Your task to perform on an android device: clear all cookies in the chrome app Image 0: 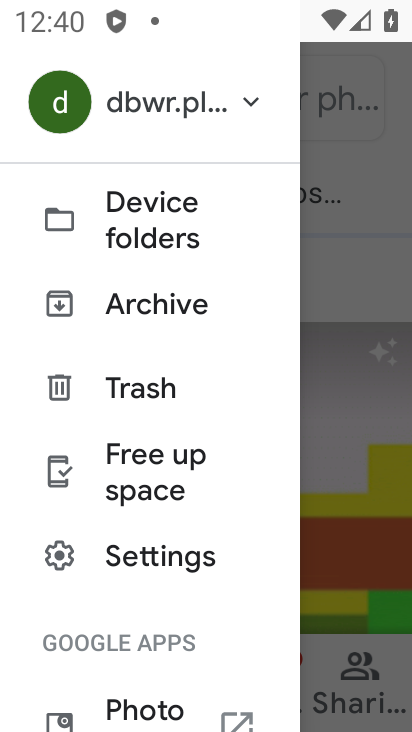
Step 0: press home button
Your task to perform on an android device: clear all cookies in the chrome app Image 1: 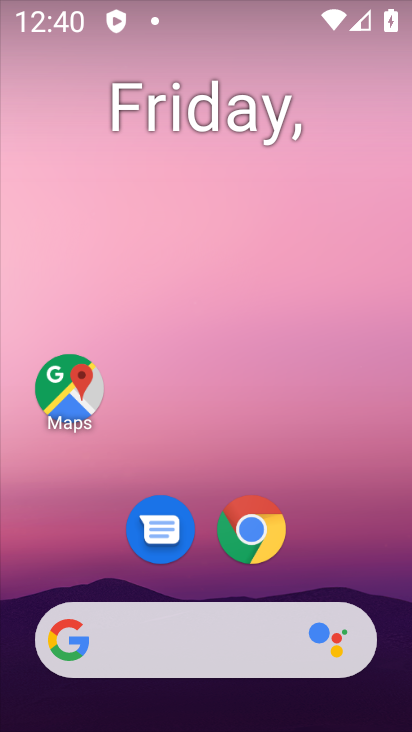
Step 1: click (259, 534)
Your task to perform on an android device: clear all cookies in the chrome app Image 2: 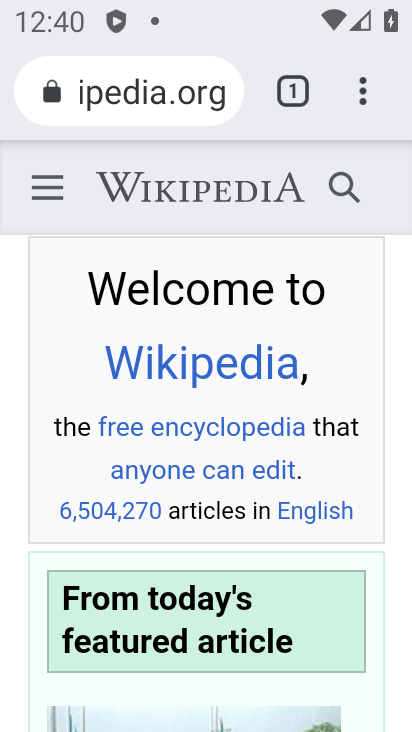
Step 2: click (363, 93)
Your task to perform on an android device: clear all cookies in the chrome app Image 3: 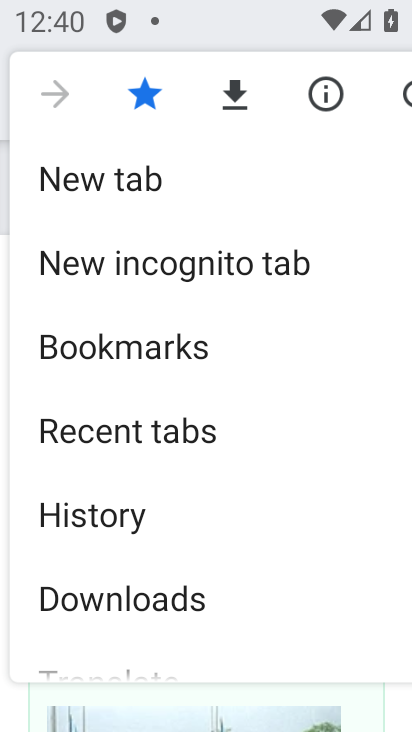
Step 3: click (115, 521)
Your task to perform on an android device: clear all cookies in the chrome app Image 4: 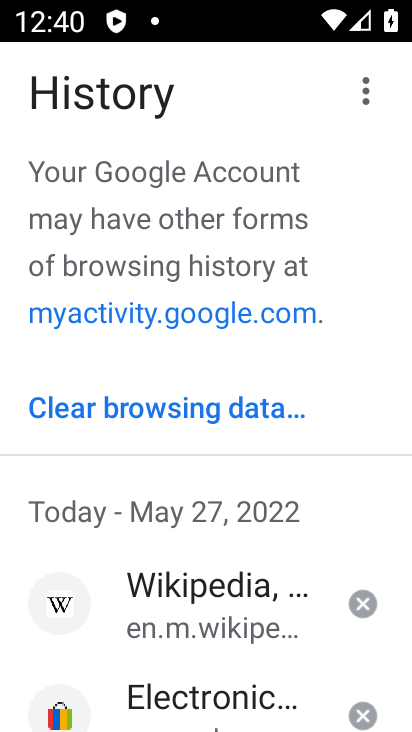
Step 4: drag from (201, 466) to (220, 171)
Your task to perform on an android device: clear all cookies in the chrome app Image 5: 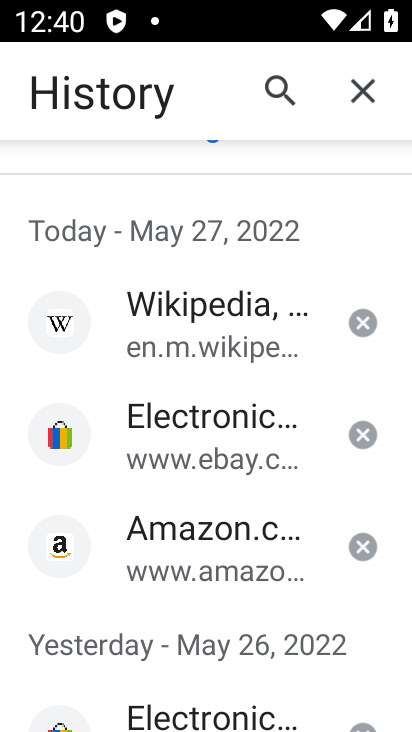
Step 5: drag from (179, 656) to (215, 262)
Your task to perform on an android device: clear all cookies in the chrome app Image 6: 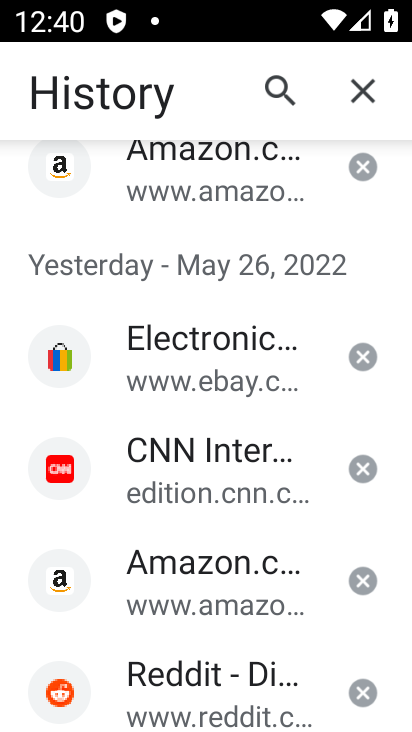
Step 6: drag from (239, 221) to (235, 648)
Your task to perform on an android device: clear all cookies in the chrome app Image 7: 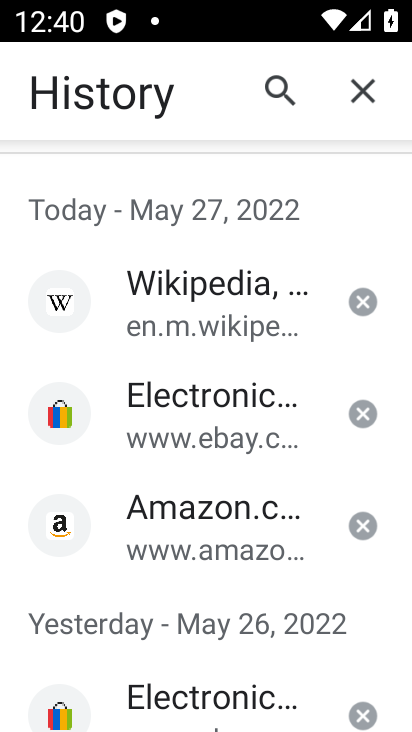
Step 7: drag from (259, 209) to (274, 650)
Your task to perform on an android device: clear all cookies in the chrome app Image 8: 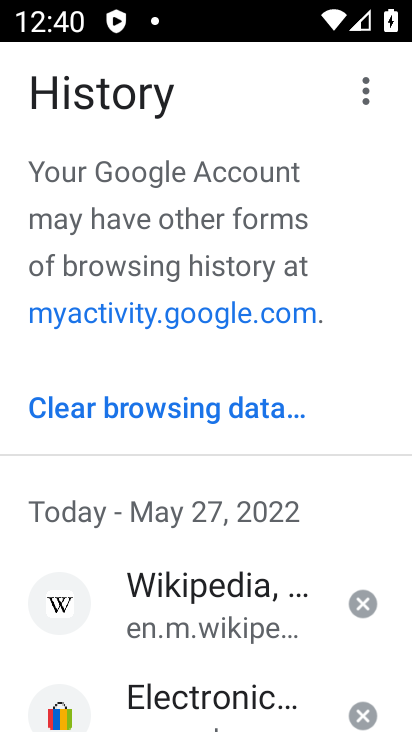
Step 8: click (196, 408)
Your task to perform on an android device: clear all cookies in the chrome app Image 9: 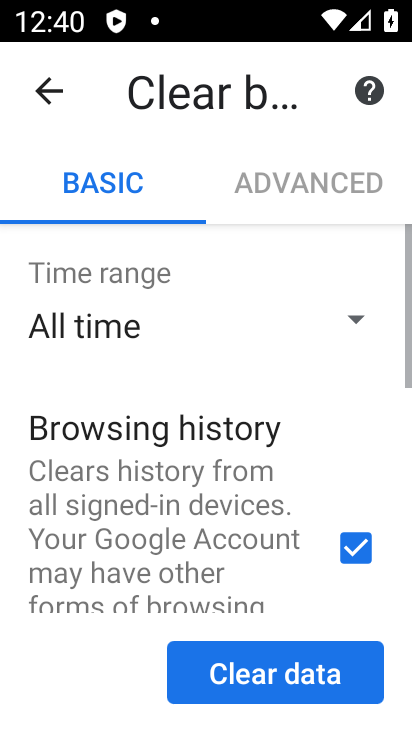
Step 9: click (264, 673)
Your task to perform on an android device: clear all cookies in the chrome app Image 10: 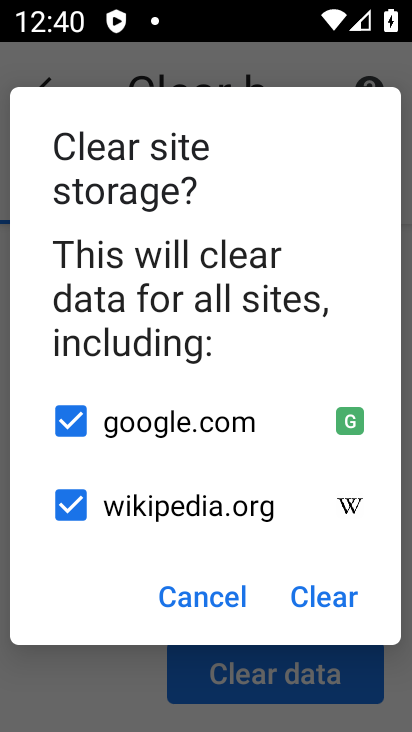
Step 10: click (310, 602)
Your task to perform on an android device: clear all cookies in the chrome app Image 11: 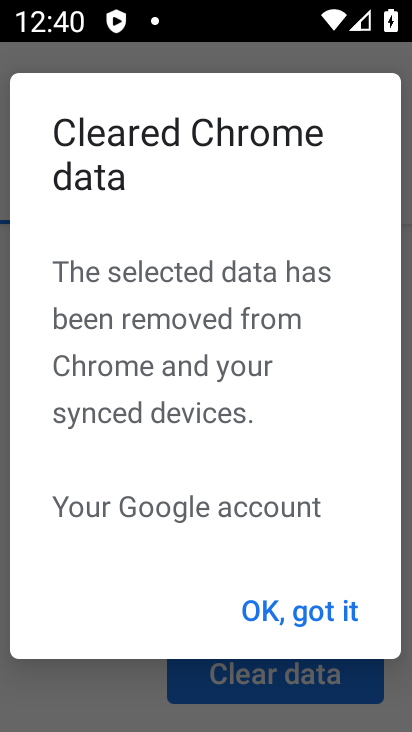
Step 11: click (314, 610)
Your task to perform on an android device: clear all cookies in the chrome app Image 12: 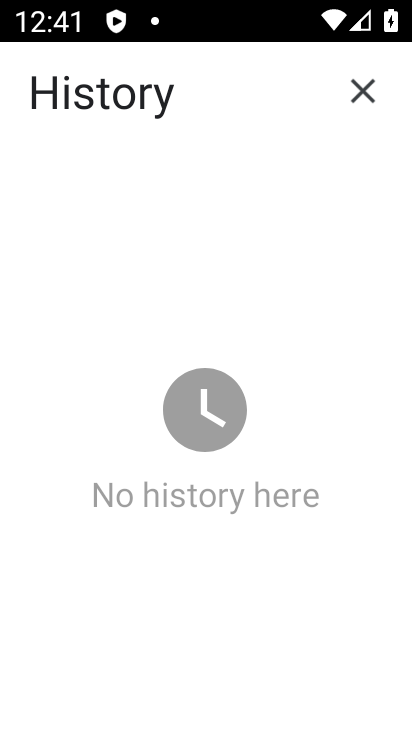
Step 12: task complete